Your task to perform on an android device: toggle notification dots Image 0: 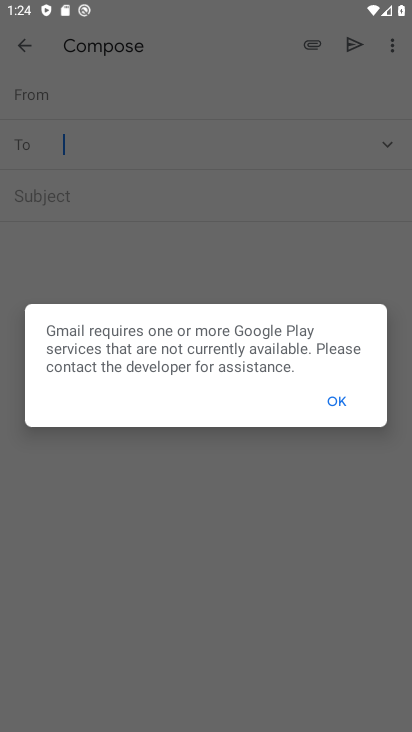
Step 0: press back button
Your task to perform on an android device: toggle notification dots Image 1: 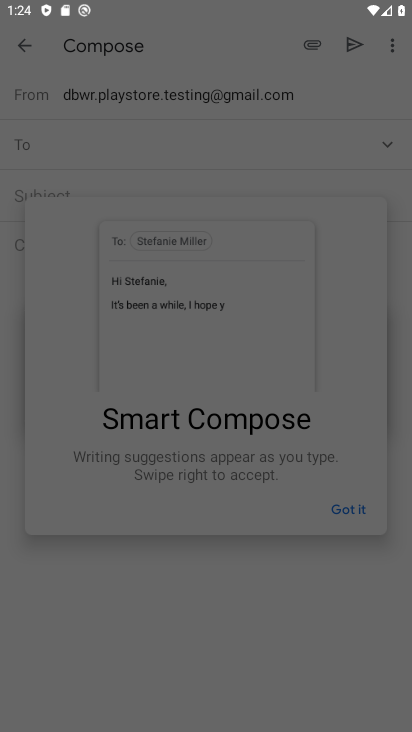
Step 1: press back button
Your task to perform on an android device: toggle notification dots Image 2: 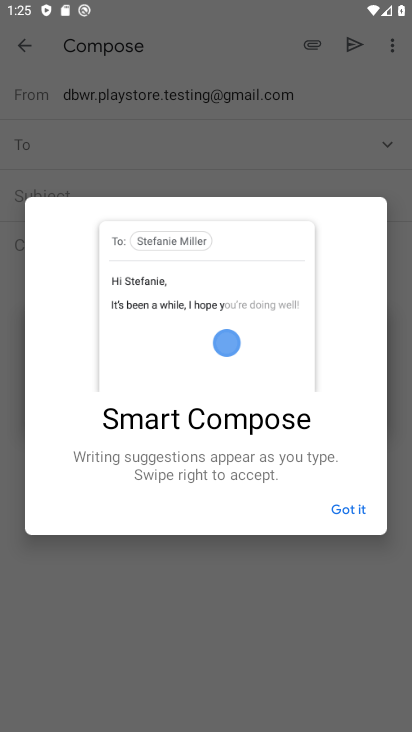
Step 2: press home button
Your task to perform on an android device: toggle notification dots Image 3: 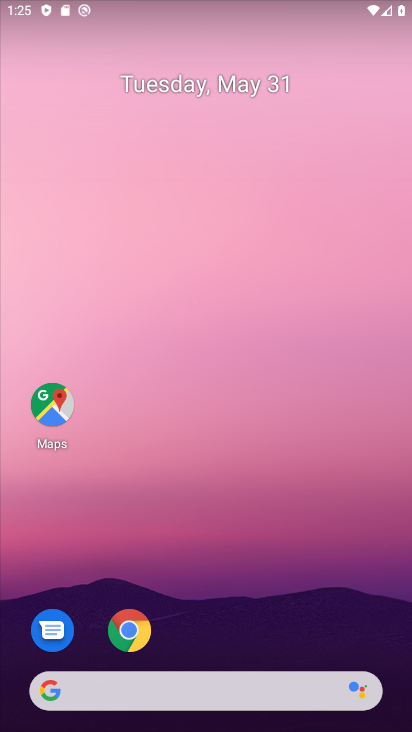
Step 3: drag from (271, 568) to (172, 2)
Your task to perform on an android device: toggle notification dots Image 4: 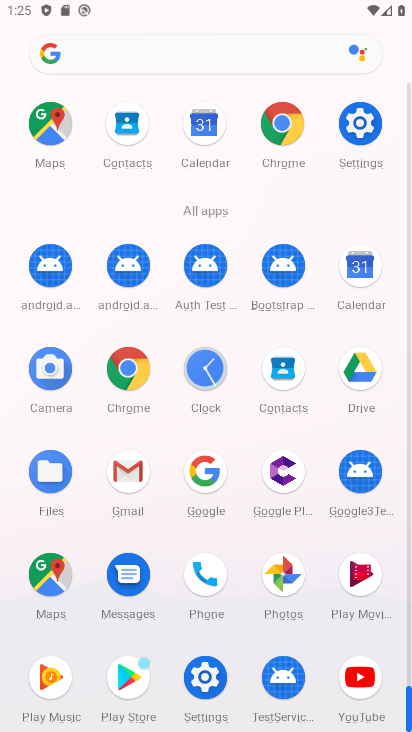
Step 4: click (354, 123)
Your task to perform on an android device: toggle notification dots Image 5: 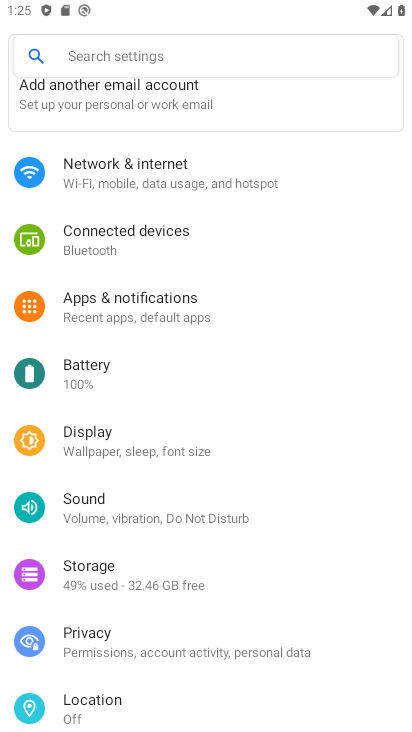
Step 5: click (163, 293)
Your task to perform on an android device: toggle notification dots Image 6: 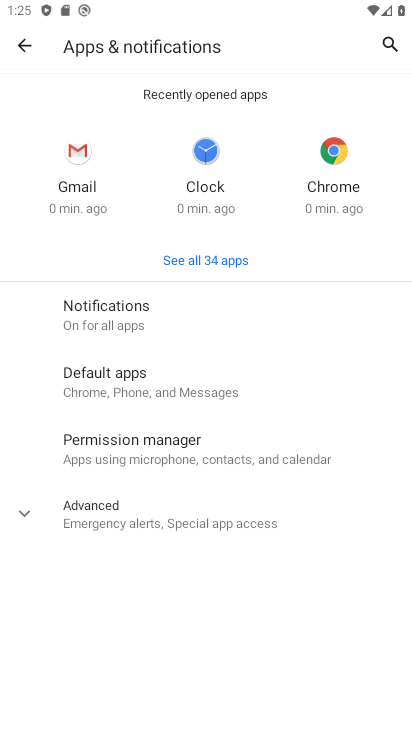
Step 6: click (71, 518)
Your task to perform on an android device: toggle notification dots Image 7: 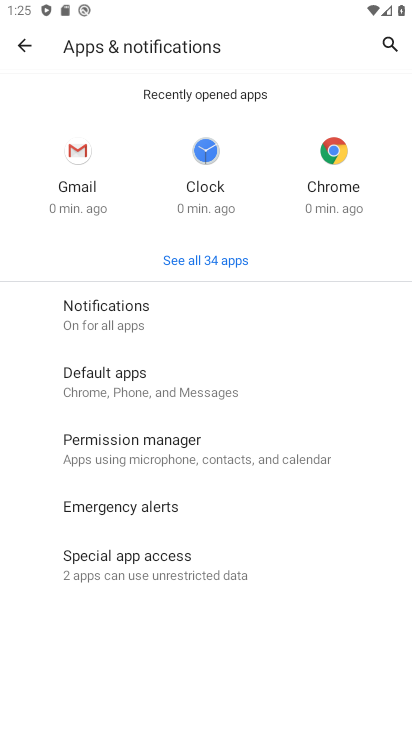
Step 7: click (151, 314)
Your task to perform on an android device: toggle notification dots Image 8: 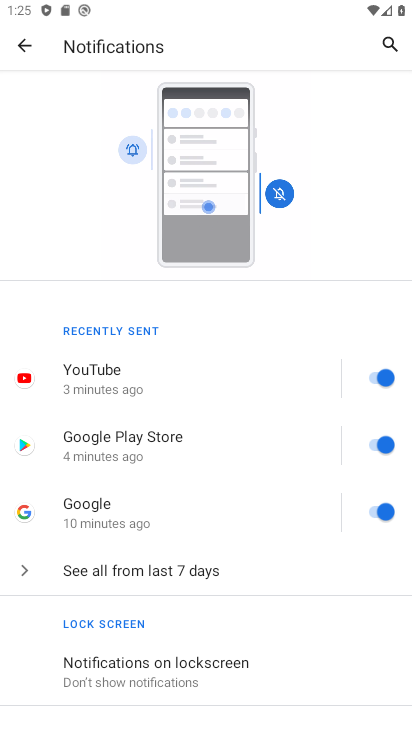
Step 8: drag from (236, 652) to (290, 159)
Your task to perform on an android device: toggle notification dots Image 9: 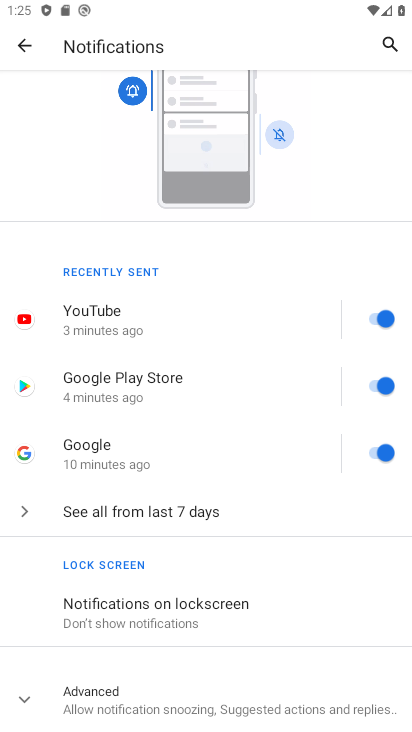
Step 9: click (76, 686)
Your task to perform on an android device: toggle notification dots Image 10: 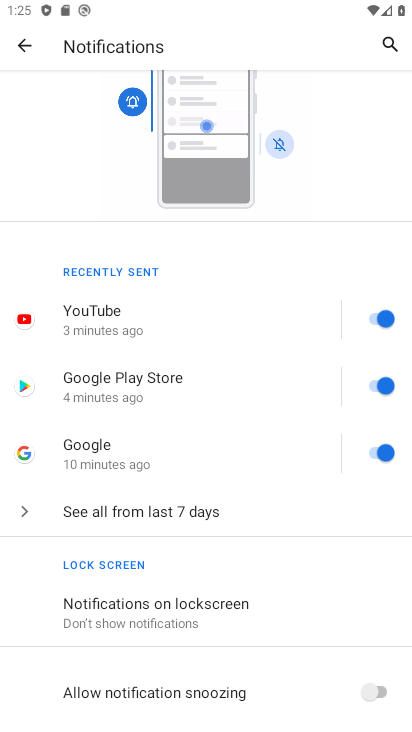
Step 10: drag from (239, 611) to (257, 185)
Your task to perform on an android device: toggle notification dots Image 11: 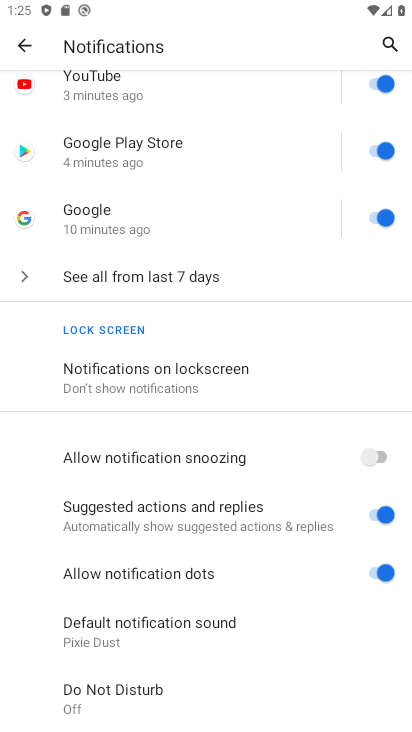
Step 11: click (371, 561)
Your task to perform on an android device: toggle notification dots Image 12: 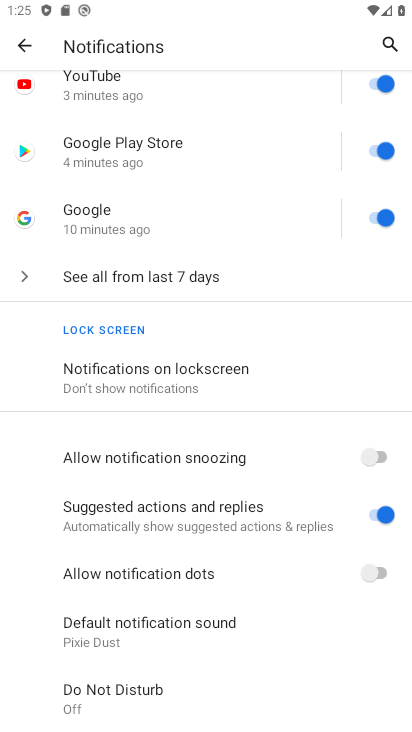
Step 12: task complete